Your task to perform on an android device: Install the Instagram app Image 0: 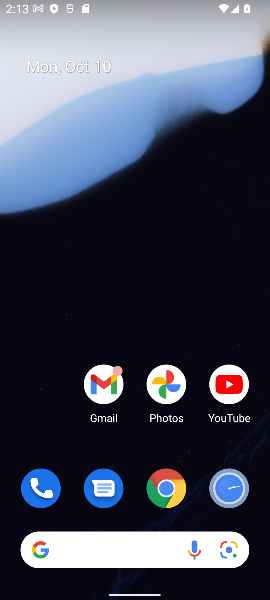
Step 0: drag from (62, 444) to (132, 11)
Your task to perform on an android device: Install the Instagram app Image 1: 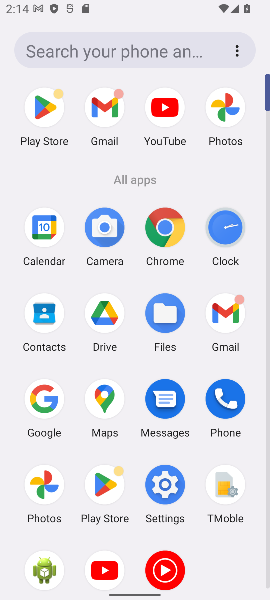
Step 1: click (41, 402)
Your task to perform on an android device: Install the Instagram app Image 2: 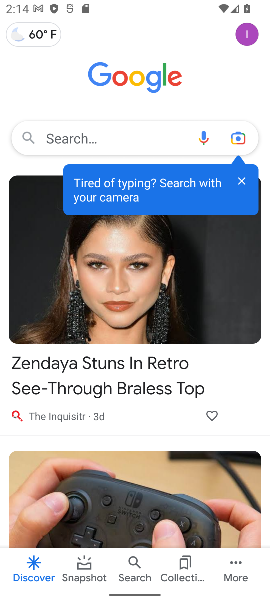
Step 2: press home button
Your task to perform on an android device: Install the Instagram app Image 3: 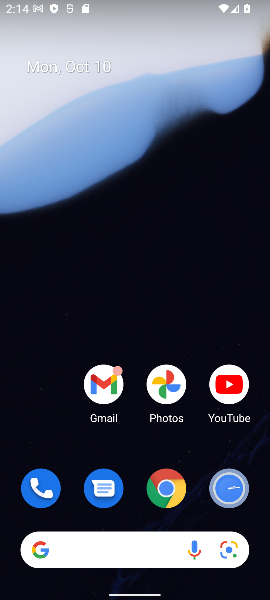
Step 3: drag from (116, 439) to (217, 3)
Your task to perform on an android device: Install the Instagram app Image 4: 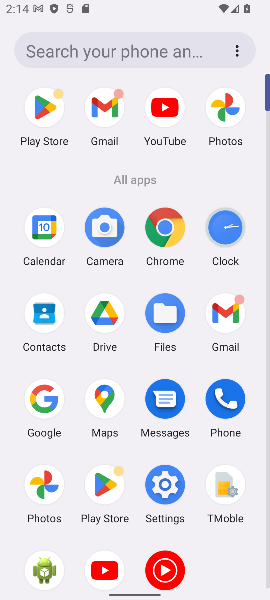
Step 4: click (101, 478)
Your task to perform on an android device: Install the Instagram app Image 5: 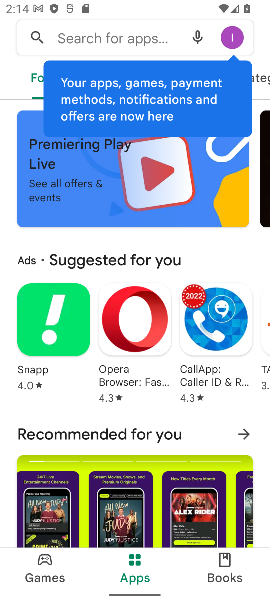
Step 5: click (141, 32)
Your task to perform on an android device: Install the Instagram app Image 6: 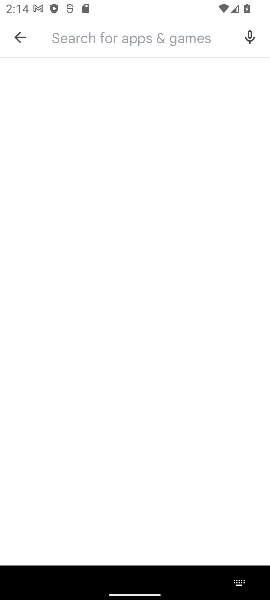
Step 6: type "instagram"
Your task to perform on an android device: Install the Instagram app Image 7: 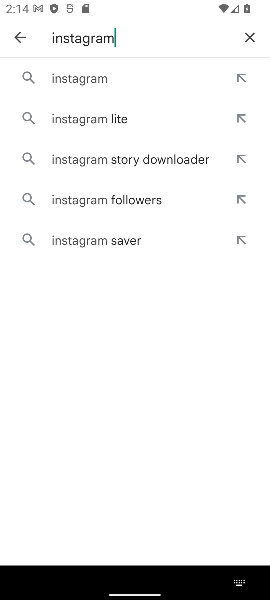
Step 7: click (85, 80)
Your task to perform on an android device: Install the Instagram app Image 8: 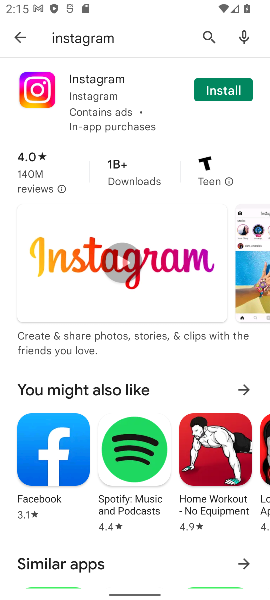
Step 8: click (209, 94)
Your task to perform on an android device: Install the Instagram app Image 9: 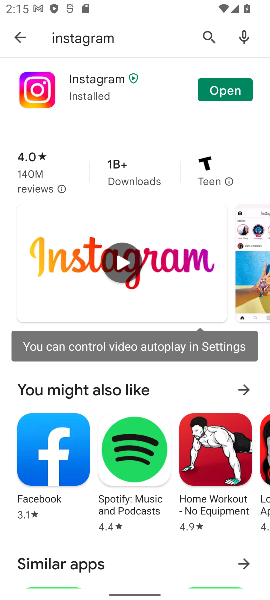
Step 9: task complete